Your task to perform on an android device: delete browsing data in the chrome app Image 0: 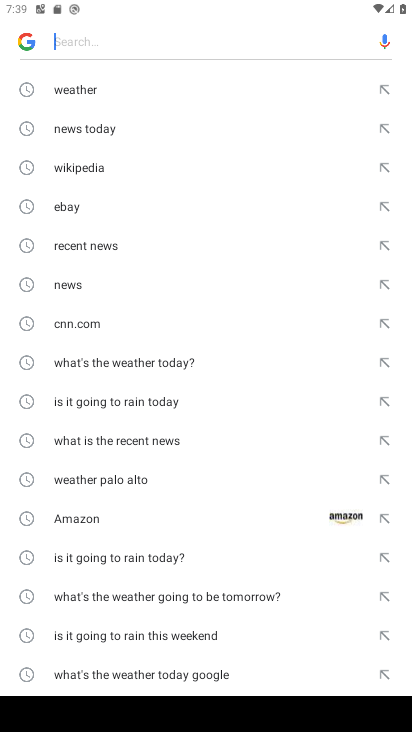
Step 0: press home button
Your task to perform on an android device: delete browsing data in the chrome app Image 1: 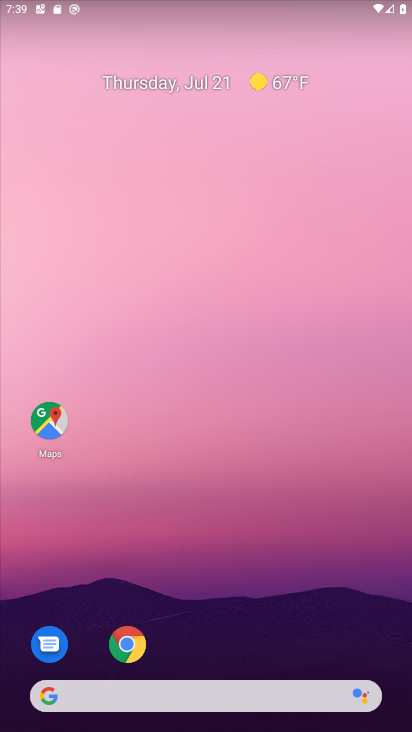
Step 1: drag from (234, 644) to (251, 3)
Your task to perform on an android device: delete browsing data in the chrome app Image 2: 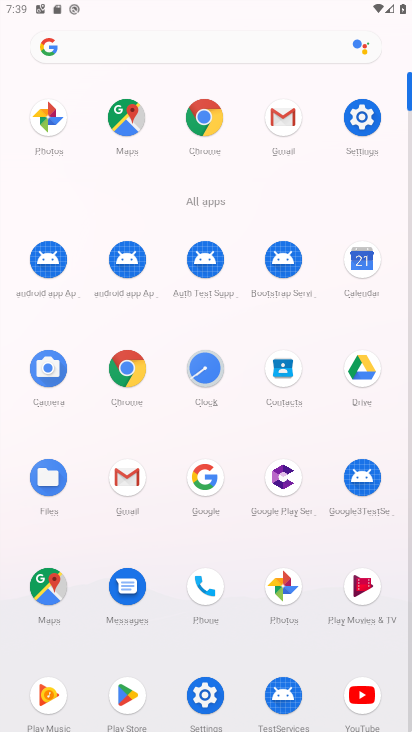
Step 2: click (137, 392)
Your task to perform on an android device: delete browsing data in the chrome app Image 3: 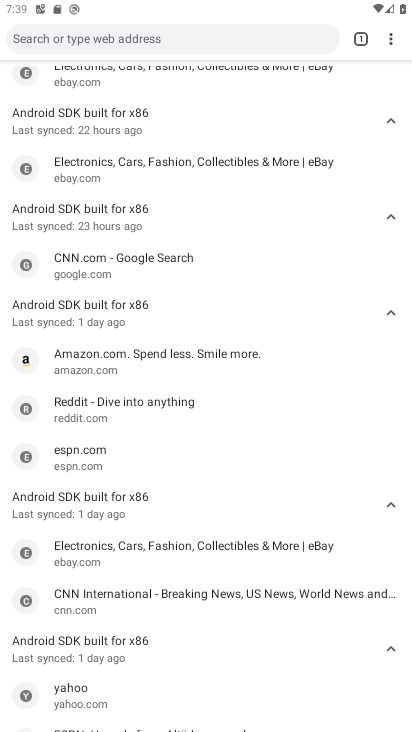
Step 3: click (407, 22)
Your task to perform on an android device: delete browsing data in the chrome app Image 4: 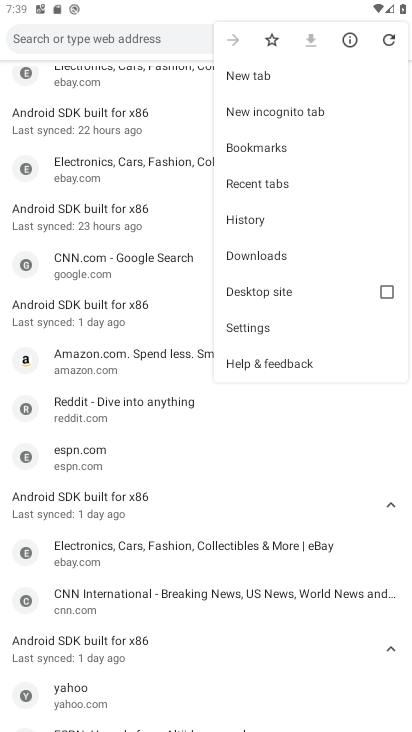
Step 4: click (244, 217)
Your task to perform on an android device: delete browsing data in the chrome app Image 5: 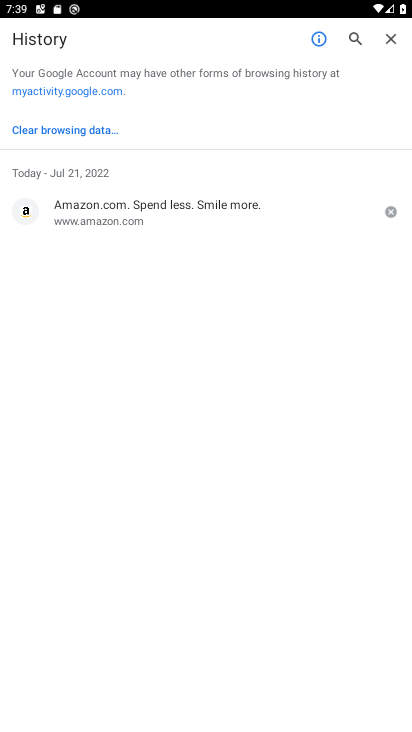
Step 5: click (96, 133)
Your task to perform on an android device: delete browsing data in the chrome app Image 6: 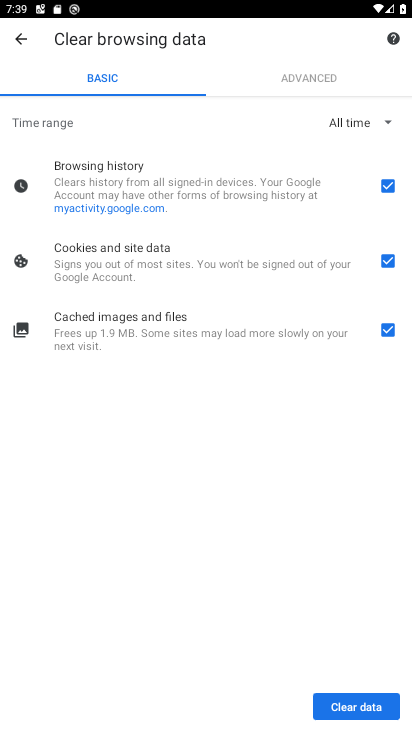
Step 6: click (366, 703)
Your task to perform on an android device: delete browsing data in the chrome app Image 7: 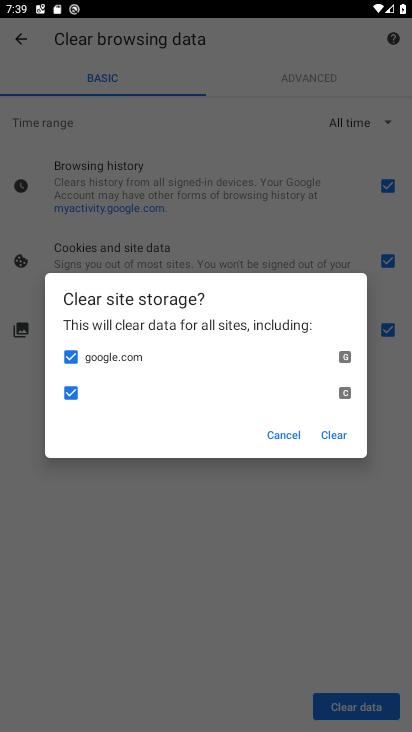
Step 7: click (336, 430)
Your task to perform on an android device: delete browsing data in the chrome app Image 8: 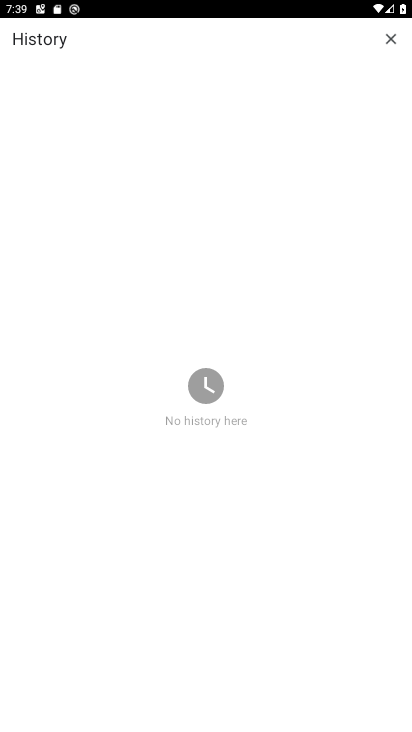
Step 8: task complete